Your task to perform on an android device: Clear the shopping cart on newegg. Search for "duracell triple a" on newegg, select the first entry, and add it to the cart. Image 0: 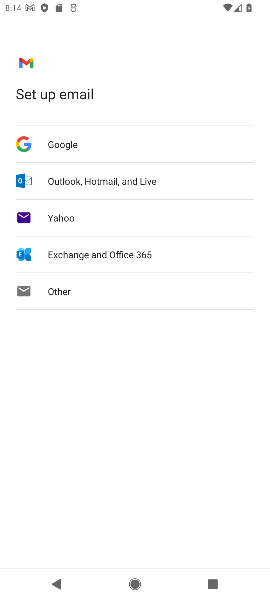
Step 0: press home button
Your task to perform on an android device: Clear the shopping cart on newegg. Search for "duracell triple a" on newegg, select the first entry, and add it to the cart. Image 1: 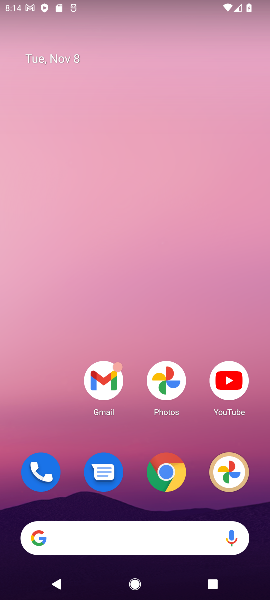
Step 1: click (165, 474)
Your task to perform on an android device: Clear the shopping cart on newegg. Search for "duracell triple a" on newegg, select the first entry, and add it to the cart. Image 2: 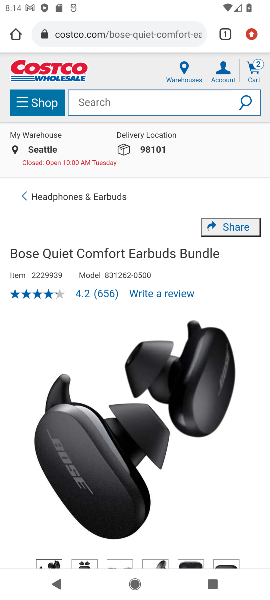
Step 2: click (128, 33)
Your task to perform on an android device: Clear the shopping cart on newegg. Search for "duracell triple a" on newegg, select the first entry, and add it to the cart. Image 3: 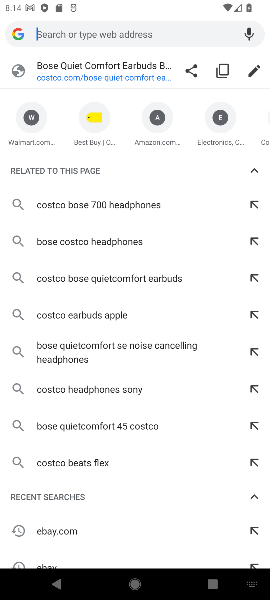
Step 3: drag from (139, 489) to (252, 88)
Your task to perform on an android device: Clear the shopping cart on newegg. Search for "duracell triple a" on newegg, select the first entry, and add it to the cart. Image 4: 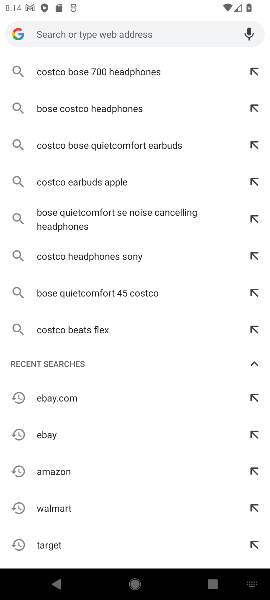
Step 4: drag from (89, 522) to (257, 150)
Your task to perform on an android device: Clear the shopping cart on newegg. Search for "duracell triple a" on newegg, select the first entry, and add it to the cart. Image 5: 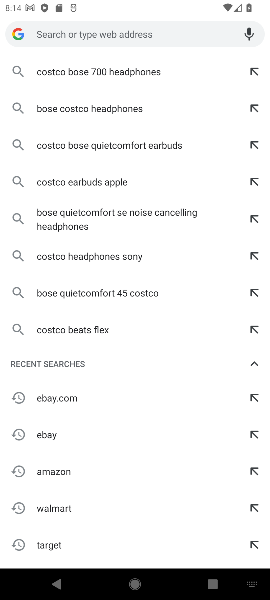
Step 5: type "newegg"
Your task to perform on an android device: Clear the shopping cart on newegg. Search for "duracell triple a" on newegg, select the first entry, and add it to the cart. Image 6: 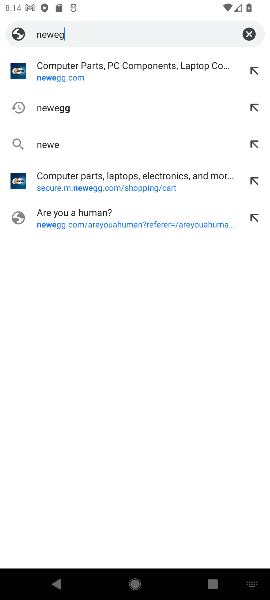
Step 6: press enter
Your task to perform on an android device: Clear the shopping cart on newegg. Search for "duracell triple a" on newegg, select the first entry, and add it to the cart. Image 7: 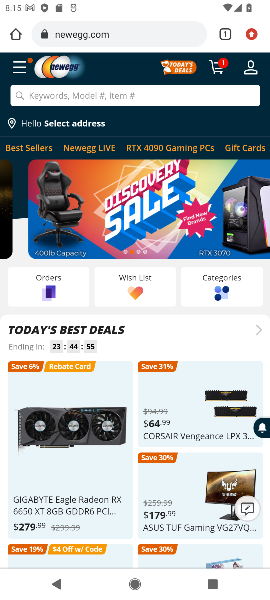
Step 7: click (125, 98)
Your task to perform on an android device: Clear the shopping cart on newegg. Search for "duracell triple a" on newegg, select the first entry, and add it to the cart. Image 8: 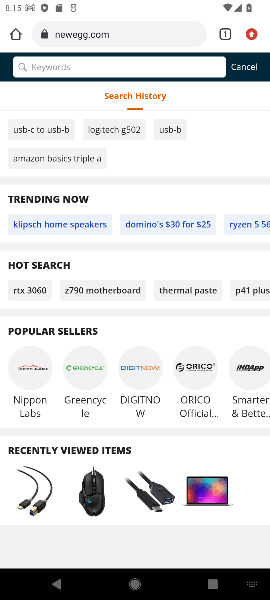
Step 8: type "duracell triple a"
Your task to perform on an android device: Clear the shopping cart on newegg. Search for "duracell triple a" on newegg, select the first entry, and add it to the cart. Image 9: 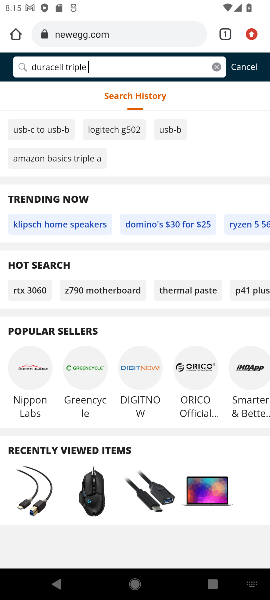
Step 9: press enter
Your task to perform on an android device: Clear the shopping cart on newegg. Search for "duracell triple a" on newegg, select the first entry, and add it to the cart. Image 10: 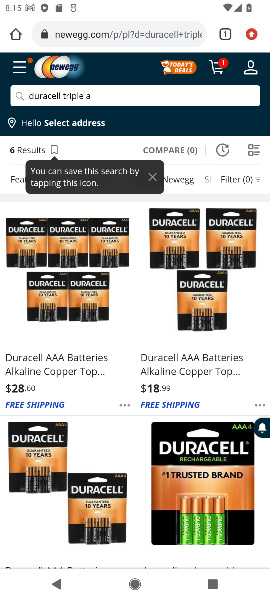
Step 10: click (86, 334)
Your task to perform on an android device: Clear the shopping cart on newegg. Search for "duracell triple a" on newegg, select the first entry, and add it to the cart. Image 11: 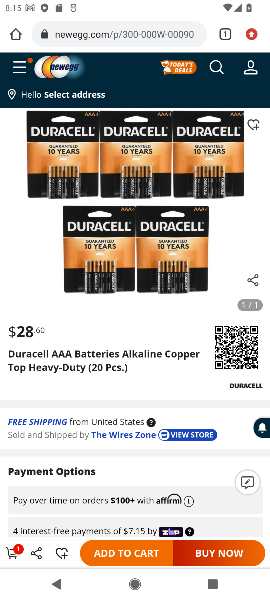
Step 11: click (130, 551)
Your task to perform on an android device: Clear the shopping cart on newegg. Search for "duracell triple a" on newegg, select the first entry, and add it to the cart. Image 12: 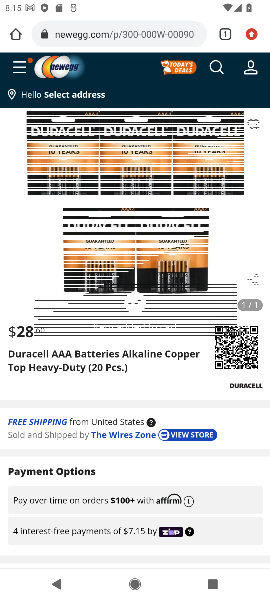
Step 12: click (18, 553)
Your task to perform on an android device: Clear the shopping cart on newegg. Search for "duracell triple a" on newegg, select the first entry, and add it to the cart. Image 13: 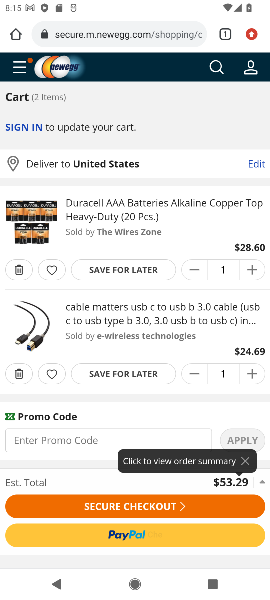
Step 13: click (15, 372)
Your task to perform on an android device: Clear the shopping cart on newegg. Search for "duracell triple a" on newegg, select the first entry, and add it to the cart. Image 14: 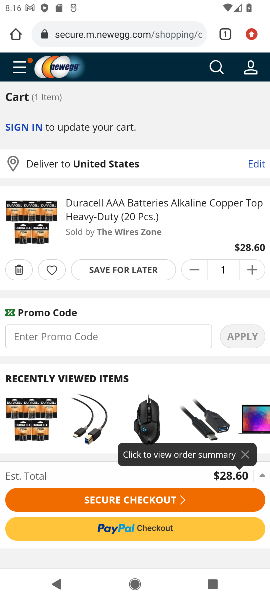
Step 14: task complete